Your task to perform on an android device: turn on the 24-hour format for clock Image 0: 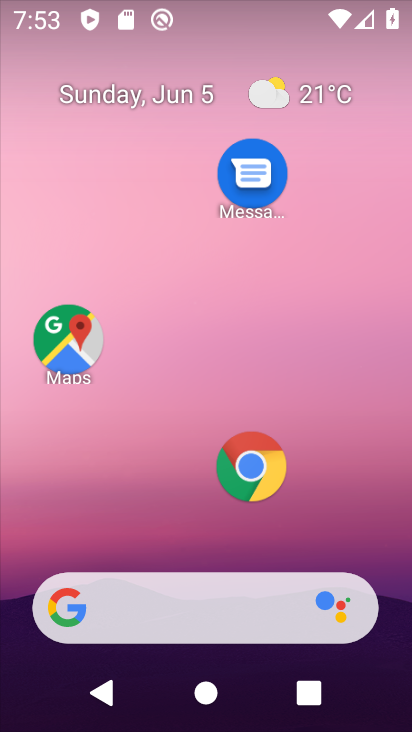
Step 0: drag from (183, 482) to (204, 169)
Your task to perform on an android device: turn on the 24-hour format for clock Image 1: 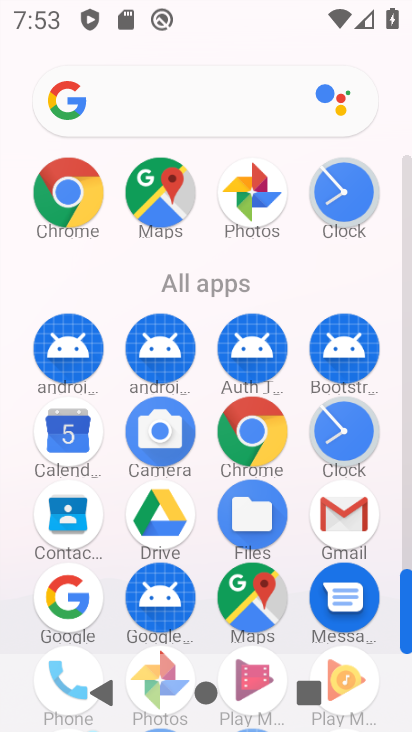
Step 1: click (182, 263)
Your task to perform on an android device: turn on the 24-hour format for clock Image 2: 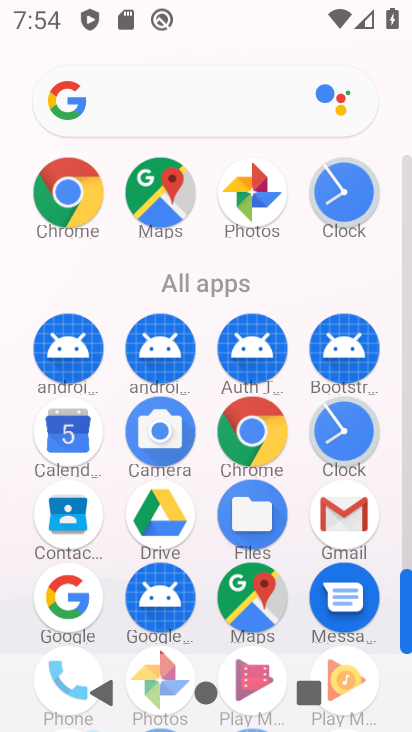
Step 2: click (352, 420)
Your task to perform on an android device: turn on the 24-hour format for clock Image 3: 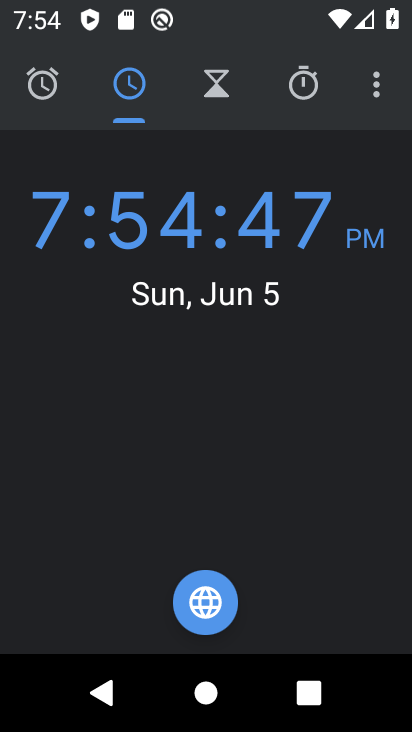
Step 3: drag from (297, 522) to (302, 279)
Your task to perform on an android device: turn on the 24-hour format for clock Image 4: 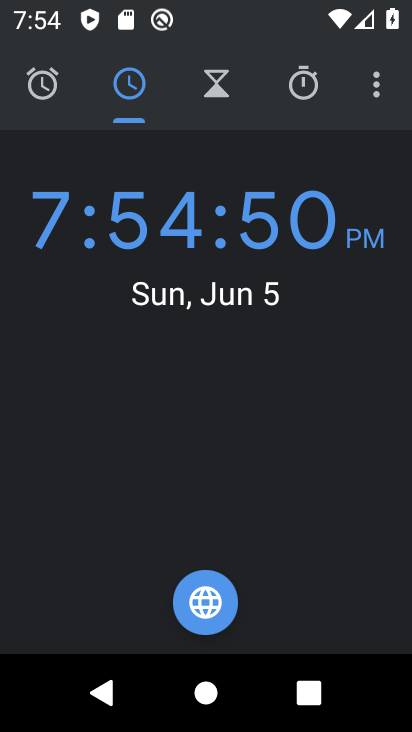
Step 4: click (374, 79)
Your task to perform on an android device: turn on the 24-hour format for clock Image 5: 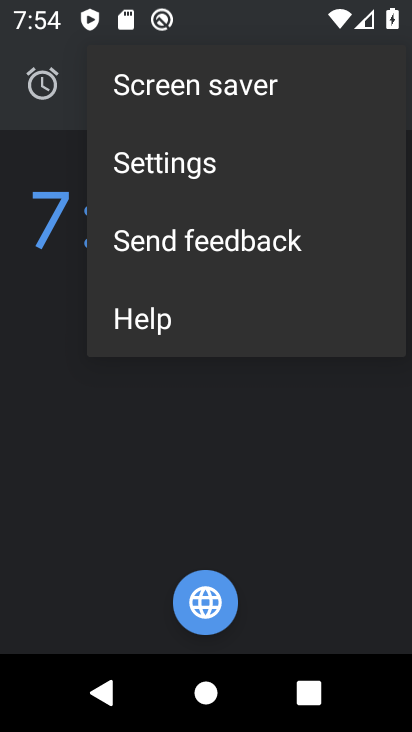
Step 5: click (228, 166)
Your task to perform on an android device: turn on the 24-hour format for clock Image 6: 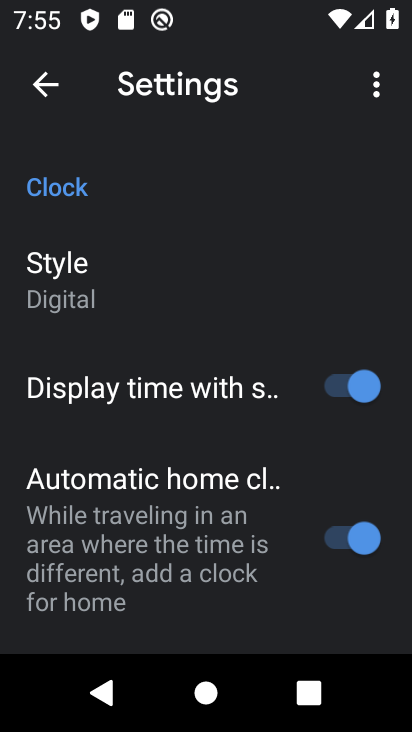
Step 6: drag from (224, 586) to (20, 374)
Your task to perform on an android device: turn on the 24-hour format for clock Image 7: 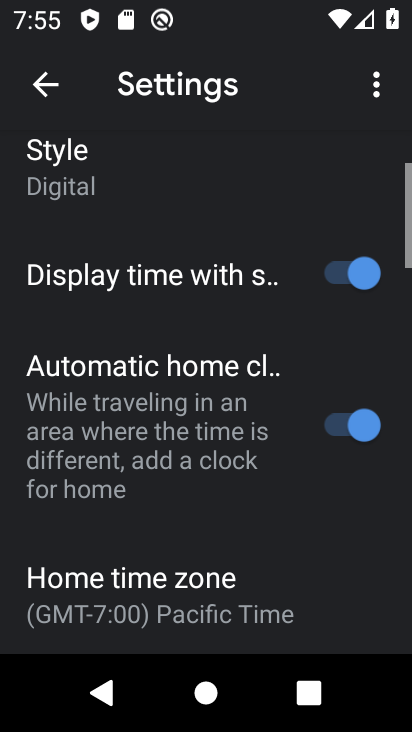
Step 7: drag from (224, 529) to (259, 123)
Your task to perform on an android device: turn on the 24-hour format for clock Image 8: 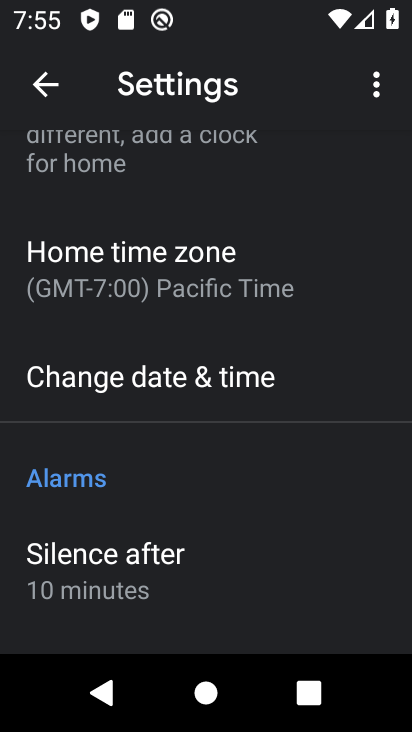
Step 8: drag from (195, 539) to (303, 189)
Your task to perform on an android device: turn on the 24-hour format for clock Image 9: 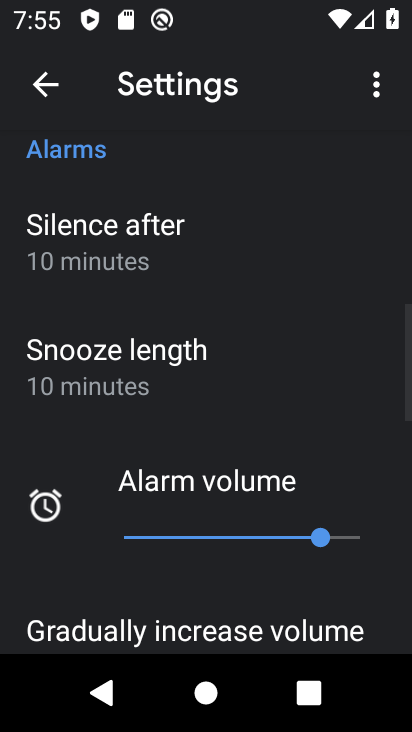
Step 9: drag from (286, 232) to (382, 715)
Your task to perform on an android device: turn on the 24-hour format for clock Image 10: 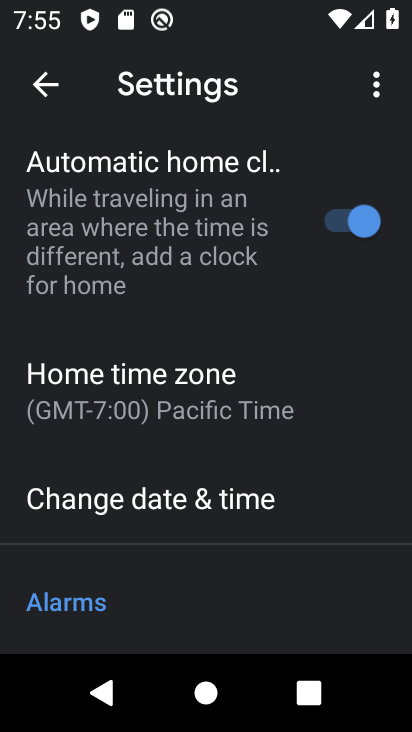
Step 10: drag from (231, 213) to (281, 600)
Your task to perform on an android device: turn on the 24-hour format for clock Image 11: 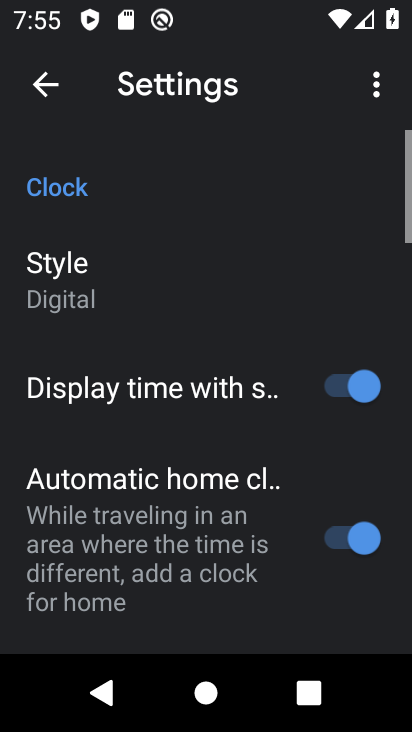
Step 11: drag from (285, 598) to (302, 298)
Your task to perform on an android device: turn on the 24-hour format for clock Image 12: 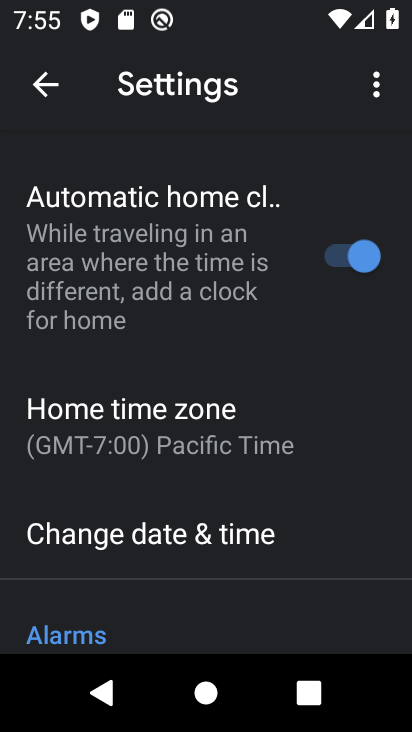
Step 12: drag from (210, 303) to (276, 639)
Your task to perform on an android device: turn on the 24-hour format for clock Image 13: 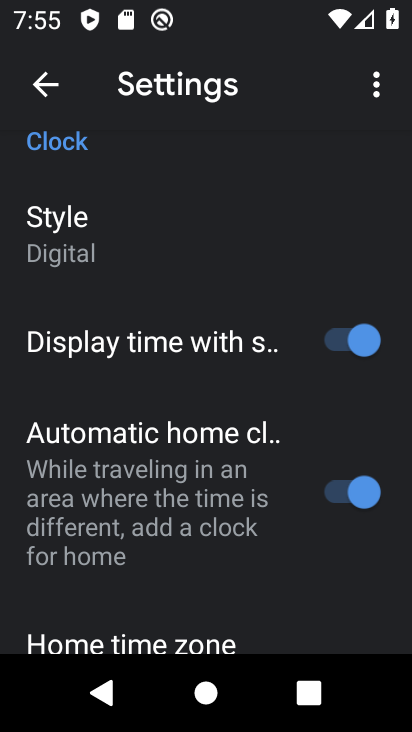
Step 13: drag from (255, 609) to (278, 300)
Your task to perform on an android device: turn on the 24-hour format for clock Image 14: 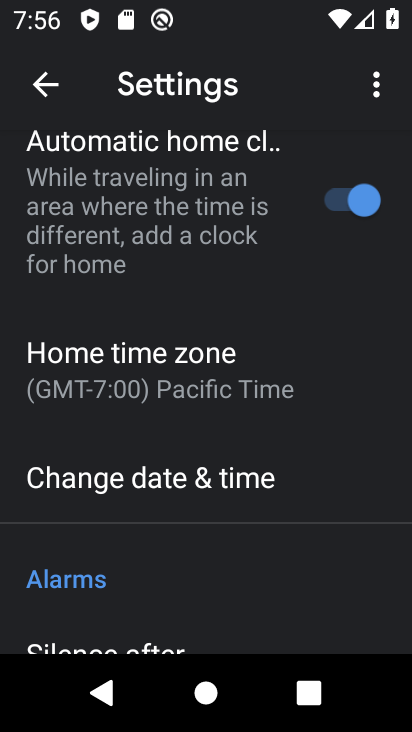
Step 14: drag from (229, 590) to (266, 0)
Your task to perform on an android device: turn on the 24-hour format for clock Image 15: 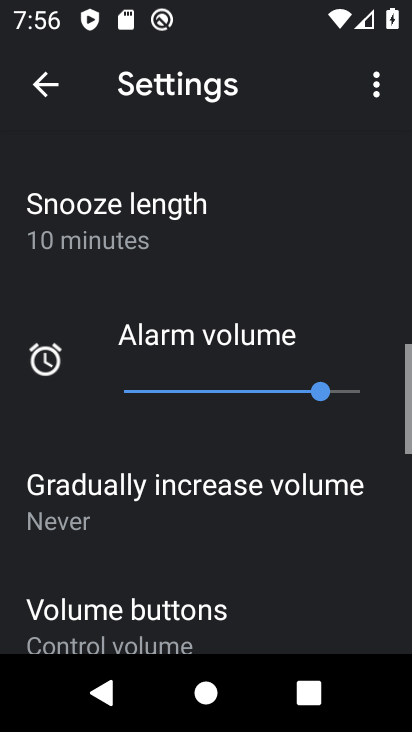
Step 15: drag from (197, 528) to (247, 299)
Your task to perform on an android device: turn on the 24-hour format for clock Image 16: 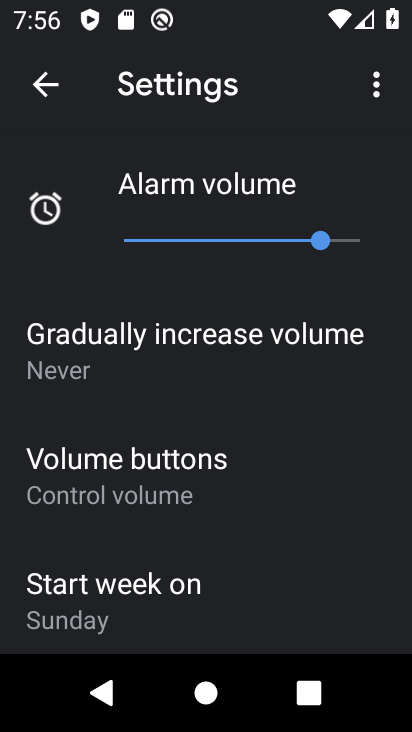
Step 16: drag from (205, 555) to (269, 278)
Your task to perform on an android device: turn on the 24-hour format for clock Image 17: 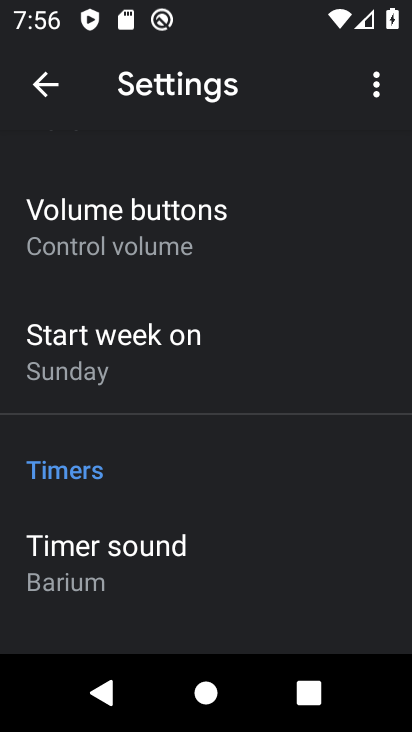
Step 17: drag from (266, 265) to (325, 720)
Your task to perform on an android device: turn on the 24-hour format for clock Image 18: 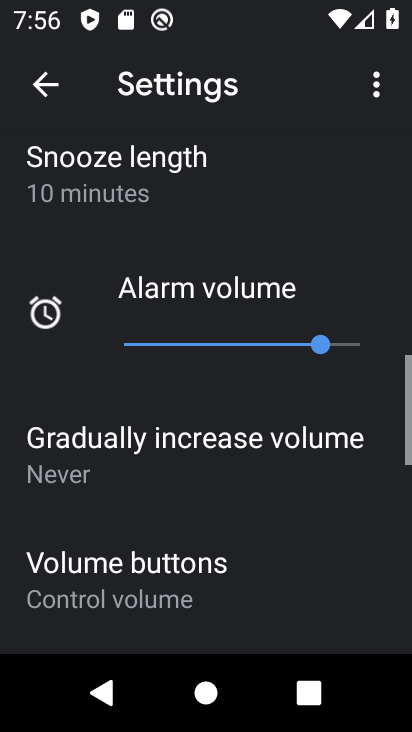
Step 18: drag from (264, 298) to (266, 727)
Your task to perform on an android device: turn on the 24-hour format for clock Image 19: 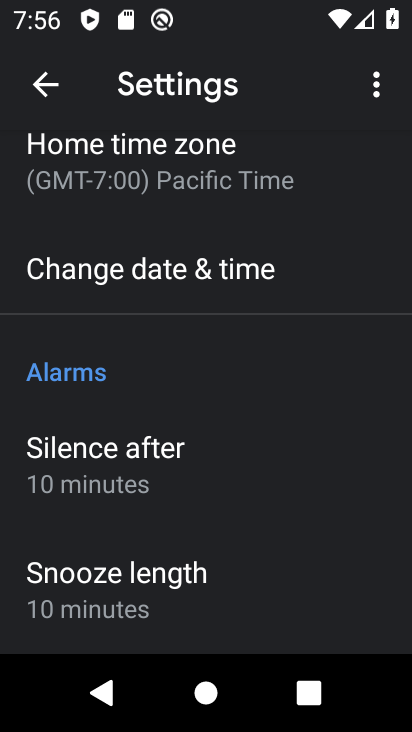
Step 19: drag from (134, 575) to (304, 62)
Your task to perform on an android device: turn on the 24-hour format for clock Image 20: 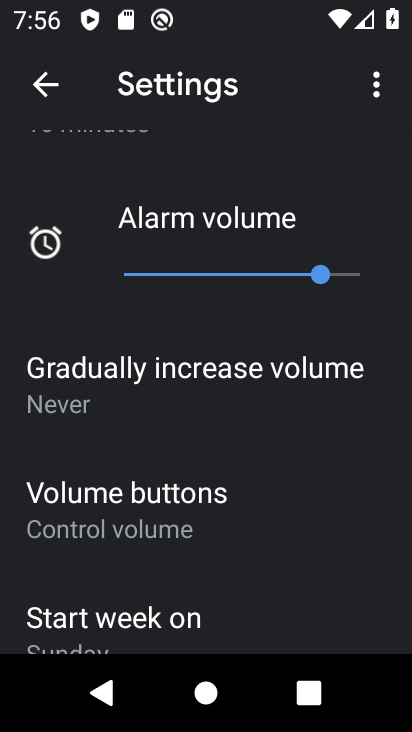
Step 20: drag from (250, 538) to (327, 718)
Your task to perform on an android device: turn on the 24-hour format for clock Image 21: 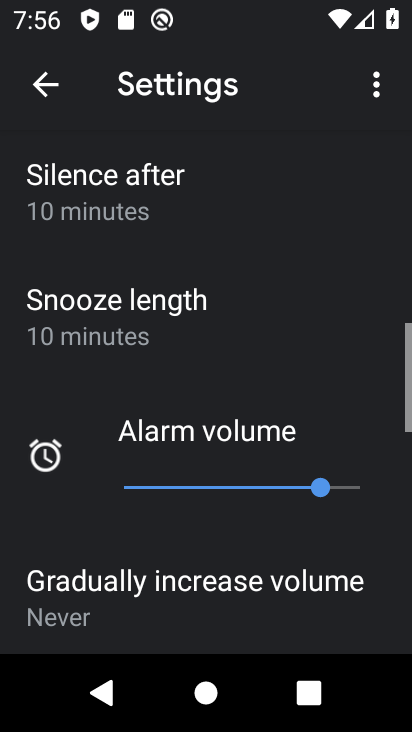
Step 21: drag from (280, 251) to (279, 651)
Your task to perform on an android device: turn on the 24-hour format for clock Image 22: 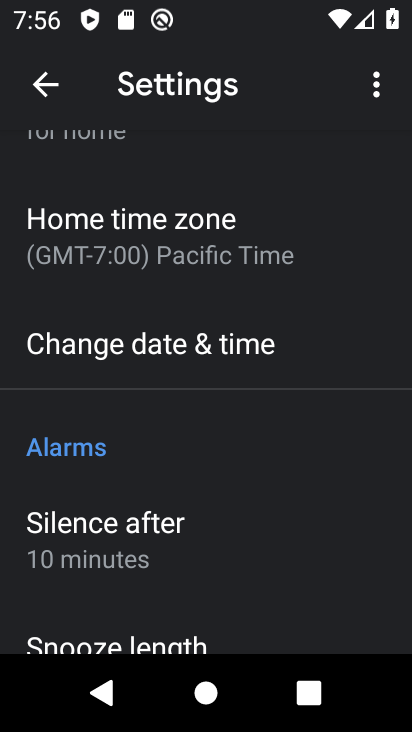
Step 22: click (150, 322)
Your task to perform on an android device: turn on the 24-hour format for clock Image 23: 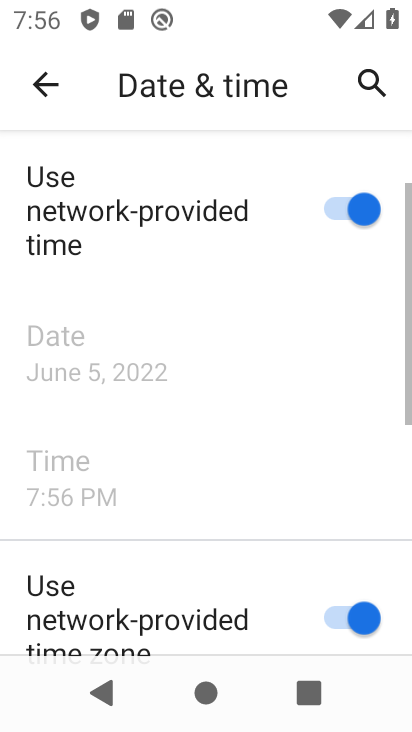
Step 23: drag from (262, 572) to (282, 180)
Your task to perform on an android device: turn on the 24-hour format for clock Image 24: 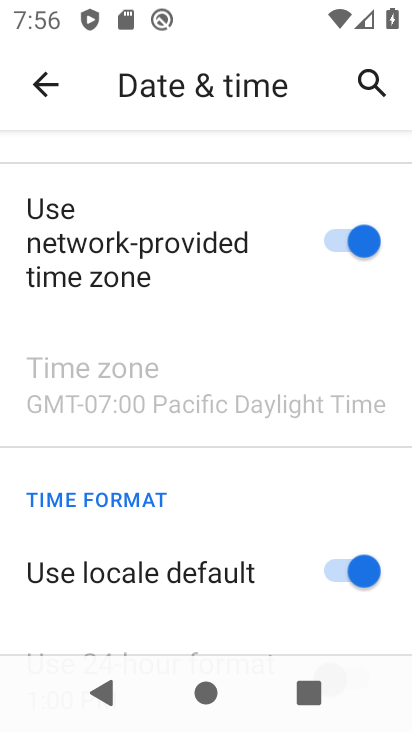
Step 24: drag from (256, 414) to (393, 34)
Your task to perform on an android device: turn on the 24-hour format for clock Image 25: 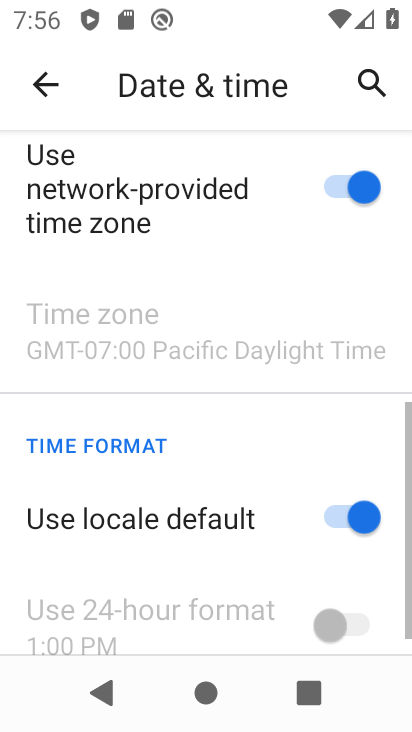
Step 25: click (359, 486)
Your task to perform on an android device: turn on the 24-hour format for clock Image 26: 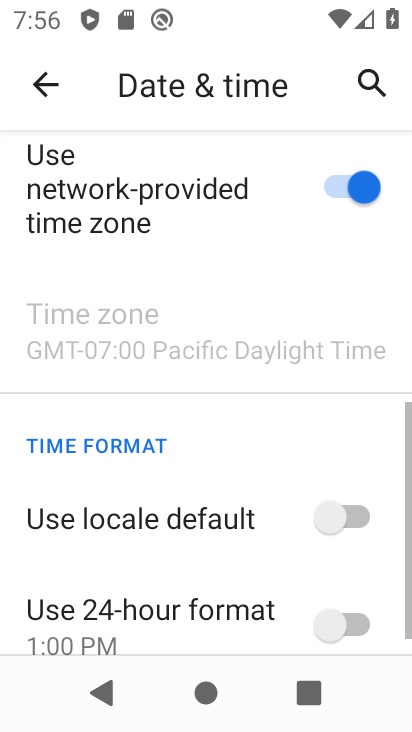
Step 26: click (331, 636)
Your task to perform on an android device: turn on the 24-hour format for clock Image 27: 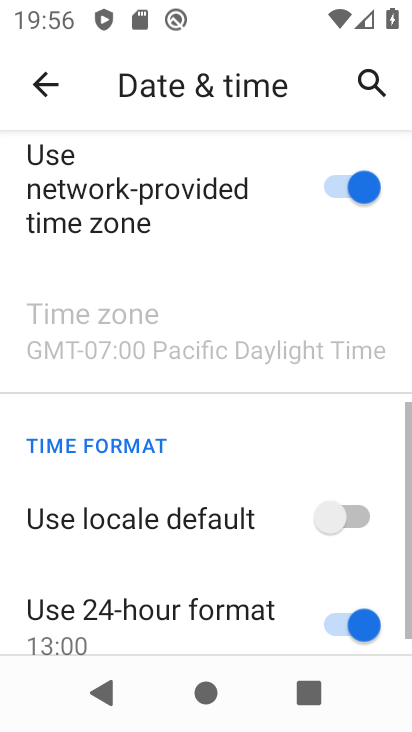
Step 27: task complete